Your task to perform on an android device: Open Wikipedia Image 0: 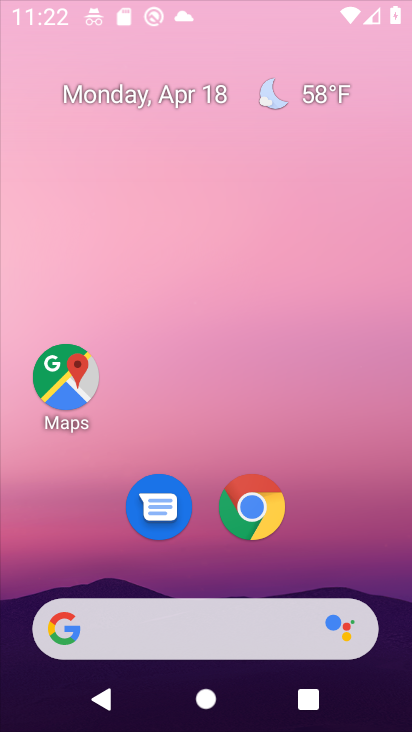
Step 0: click (343, 3)
Your task to perform on an android device: Open Wikipedia Image 1: 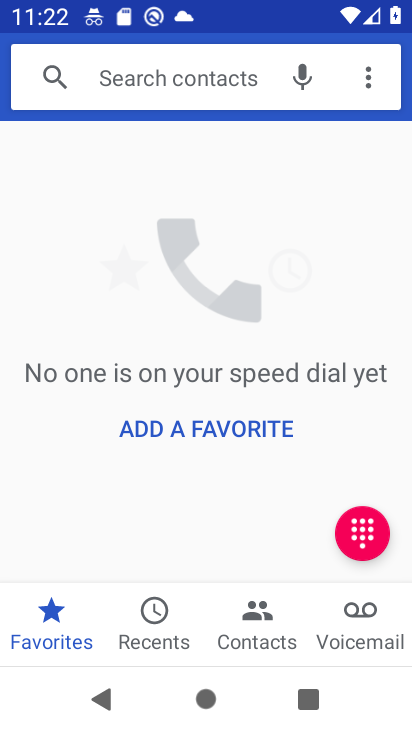
Step 1: press home button
Your task to perform on an android device: Open Wikipedia Image 2: 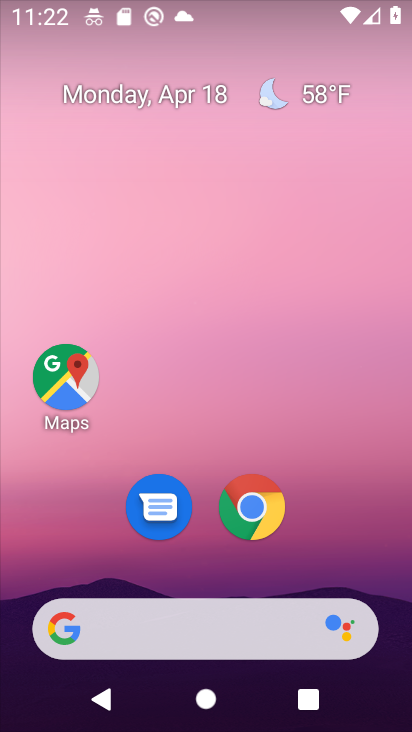
Step 2: click (251, 504)
Your task to perform on an android device: Open Wikipedia Image 3: 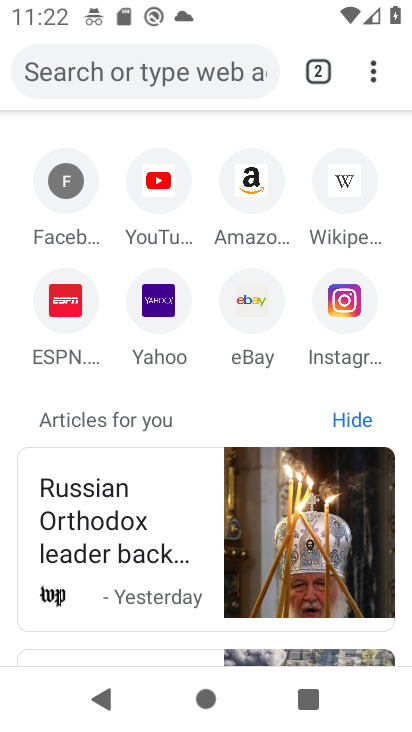
Step 3: click (342, 194)
Your task to perform on an android device: Open Wikipedia Image 4: 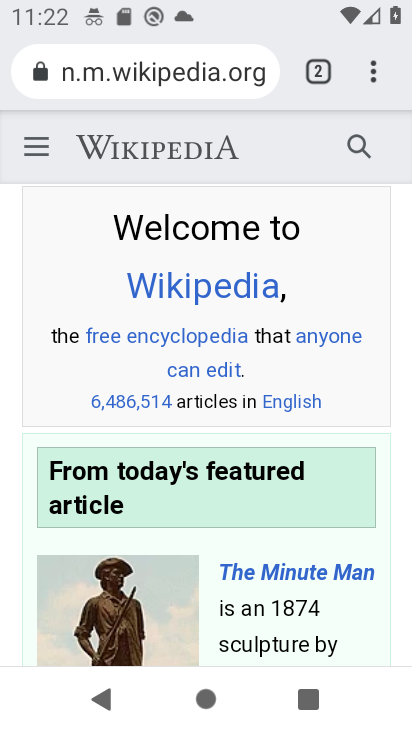
Step 4: task complete